Your task to perform on an android device: Open Amazon Image 0: 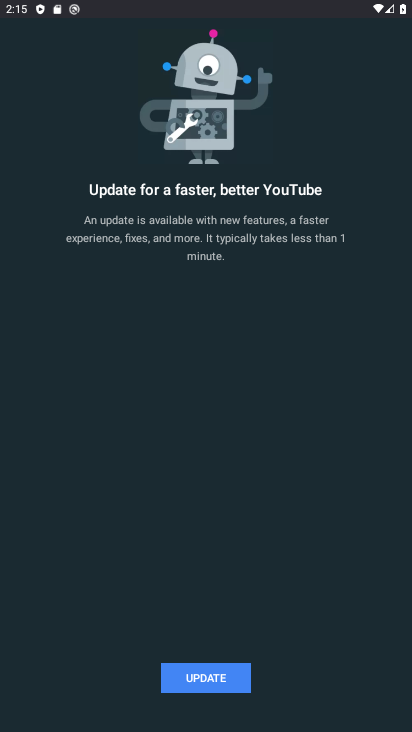
Step 0: press home button
Your task to perform on an android device: Open Amazon Image 1: 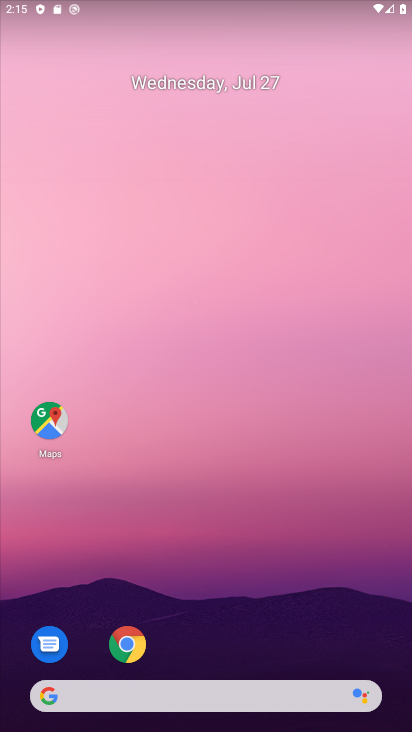
Step 1: click (122, 625)
Your task to perform on an android device: Open Amazon Image 2: 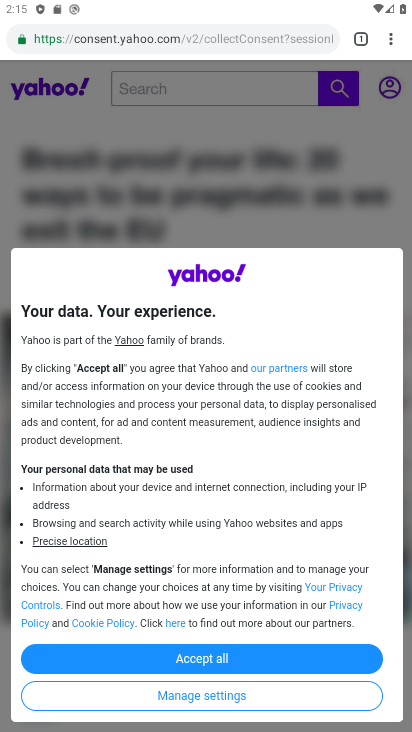
Step 2: click (389, 36)
Your task to perform on an android device: Open Amazon Image 3: 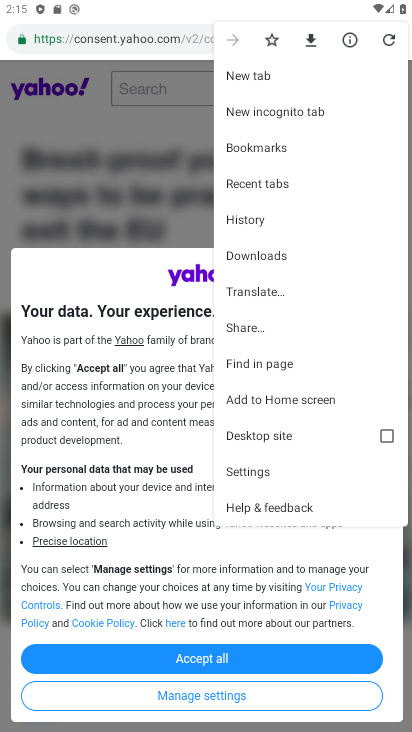
Step 3: click (263, 78)
Your task to perform on an android device: Open Amazon Image 4: 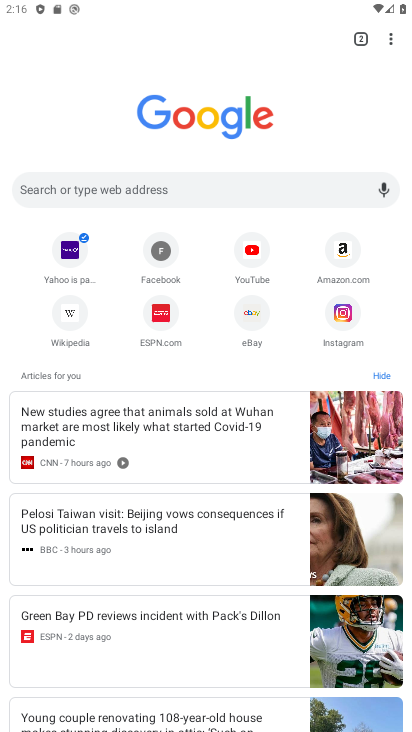
Step 4: click (345, 263)
Your task to perform on an android device: Open Amazon Image 5: 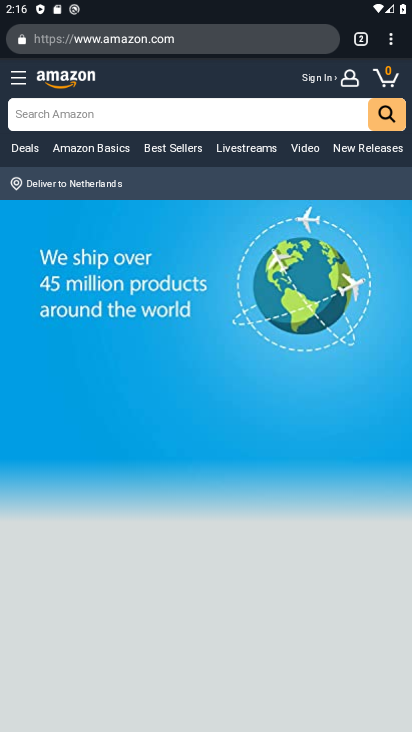
Step 5: task complete